Your task to perform on an android device: What's the weather going to be this weekend? Image 0: 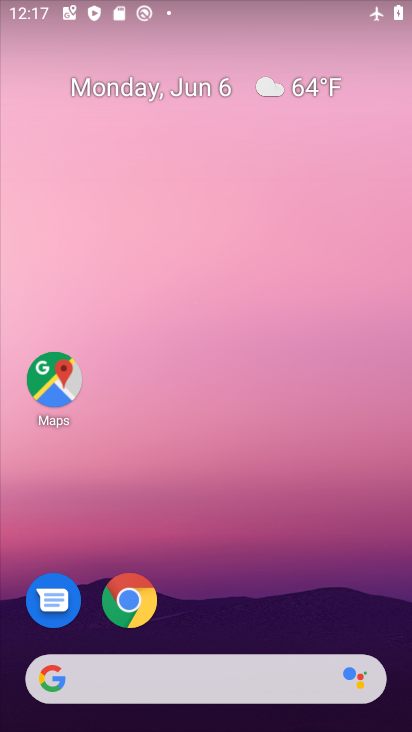
Step 0: click (312, 77)
Your task to perform on an android device: What's the weather going to be this weekend? Image 1: 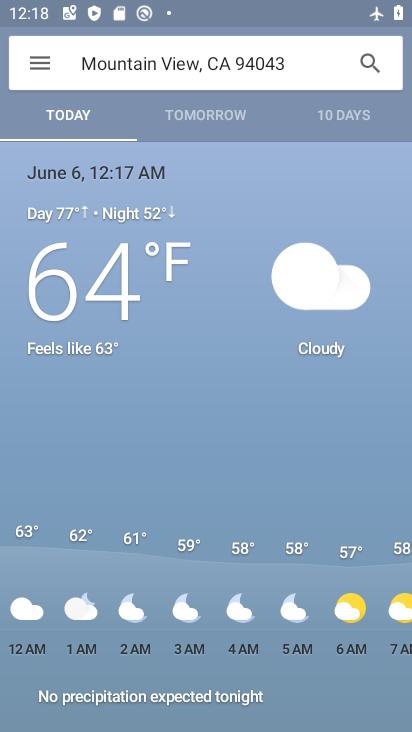
Step 1: task complete